Your task to perform on an android device: Go to Yahoo.com Image 0: 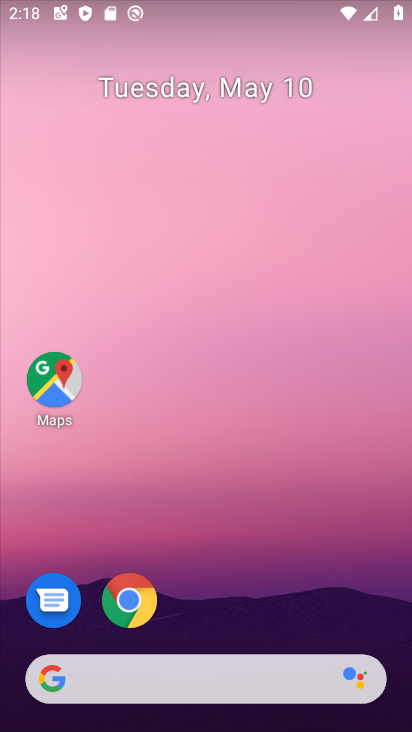
Step 0: click (118, 592)
Your task to perform on an android device: Go to Yahoo.com Image 1: 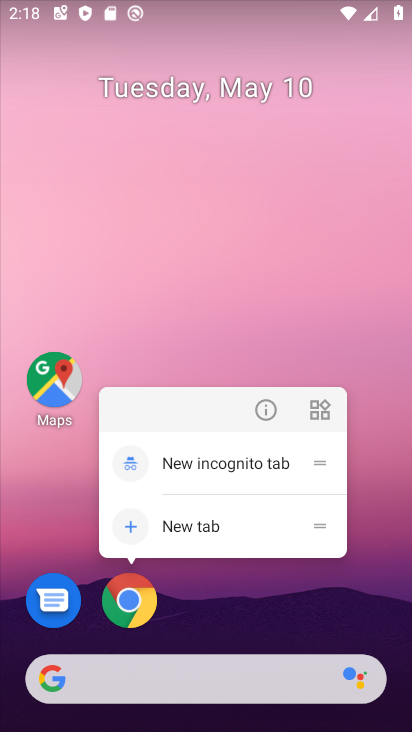
Step 1: click (127, 611)
Your task to perform on an android device: Go to Yahoo.com Image 2: 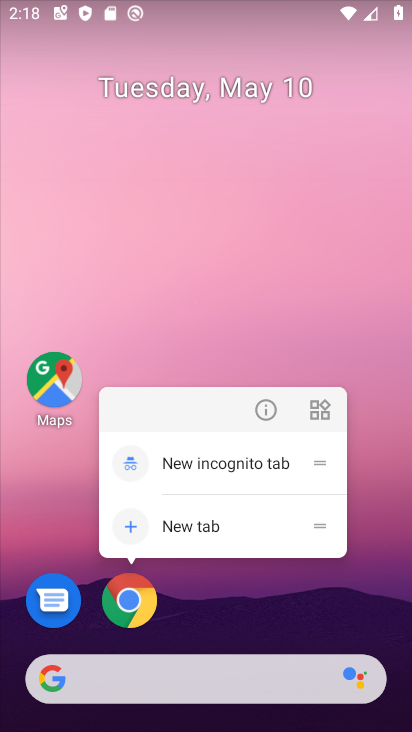
Step 2: click (125, 612)
Your task to perform on an android device: Go to Yahoo.com Image 3: 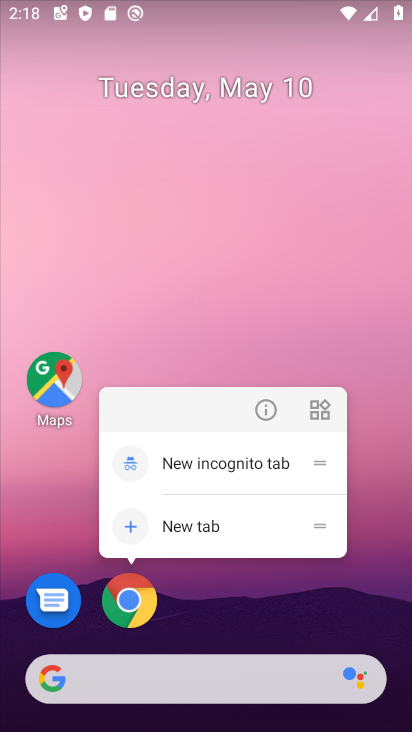
Step 3: click (130, 616)
Your task to perform on an android device: Go to Yahoo.com Image 4: 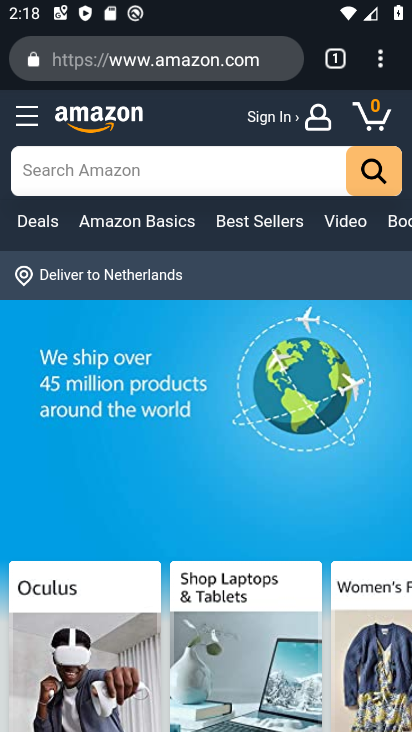
Step 4: click (210, 55)
Your task to perform on an android device: Go to Yahoo.com Image 5: 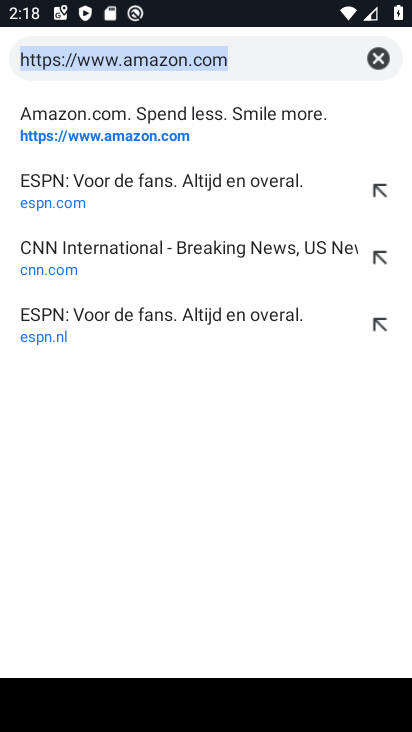
Step 5: type "yahoo.com"
Your task to perform on an android device: Go to Yahoo.com Image 6: 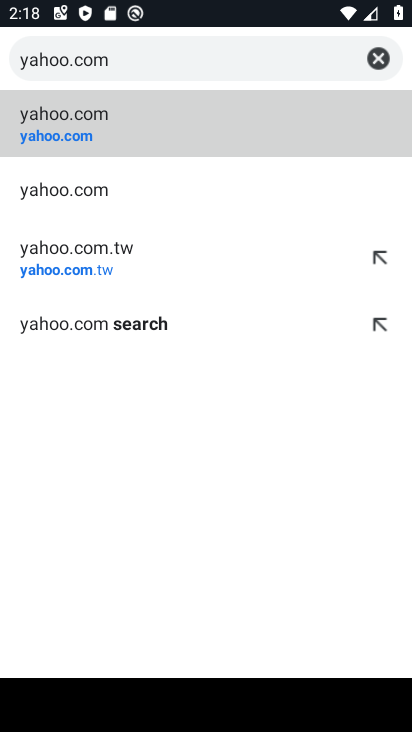
Step 6: click (142, 118)
Your task to perform on an android device: Go to Yahoo.com Image 7: 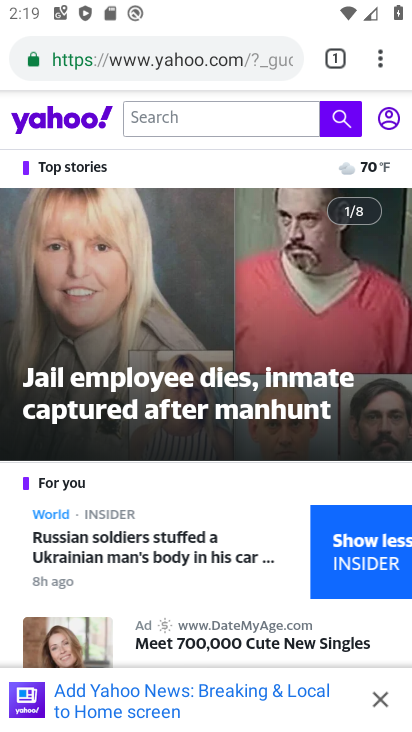
Step 7: task complete